Your task to perform on an android device: Open accessibility settings Image 0: 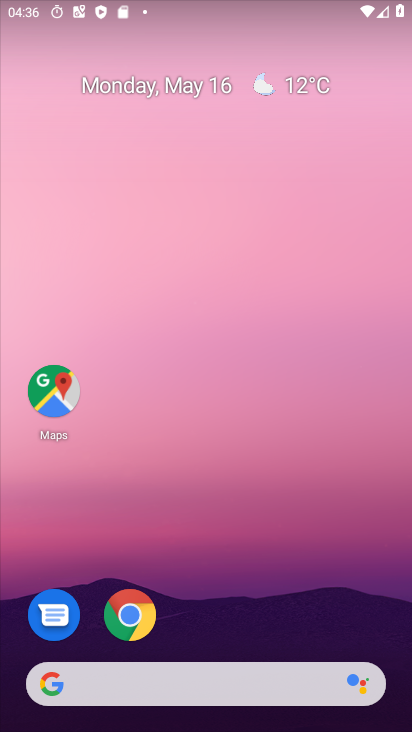
Step 0: drag from (262, 517) to (96, 175)
Your task to perform on an android device: Open accessibility settings Image 1: 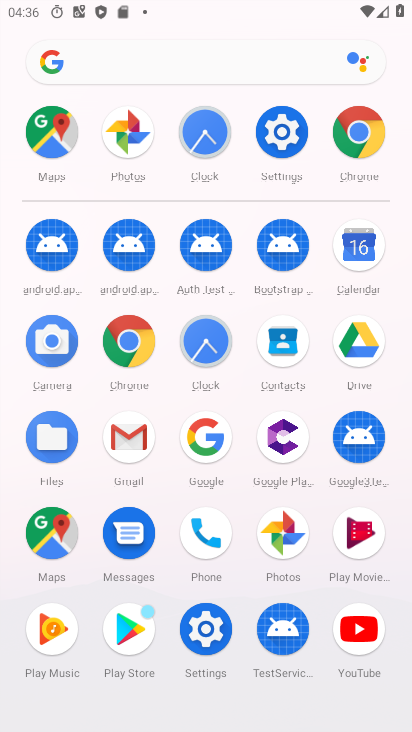
Step 1: drag from (275, 601) to (199, 164)
Your task to perform on an android device: Open accessibility settings Image 2: 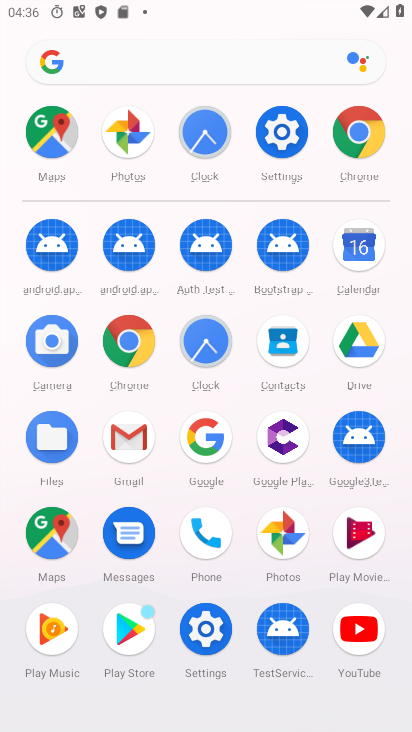
Step 2: click (277, 125)
Your task to perform on an android device: Open accessibility settings Image 3: 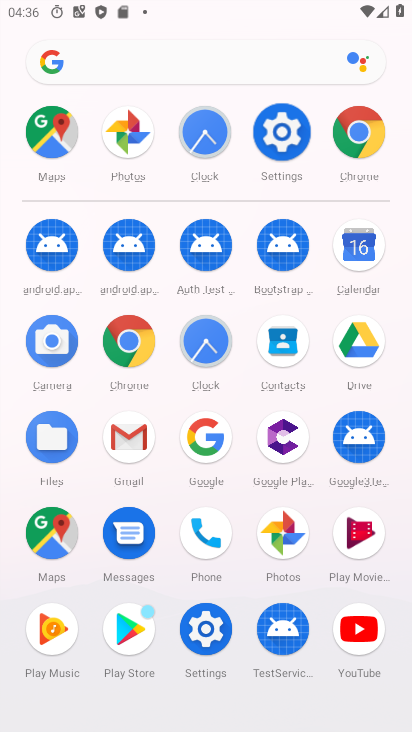
Step 3: click (277, 125)
Your task to perform on an android device: Open accessibility settings Image 4: 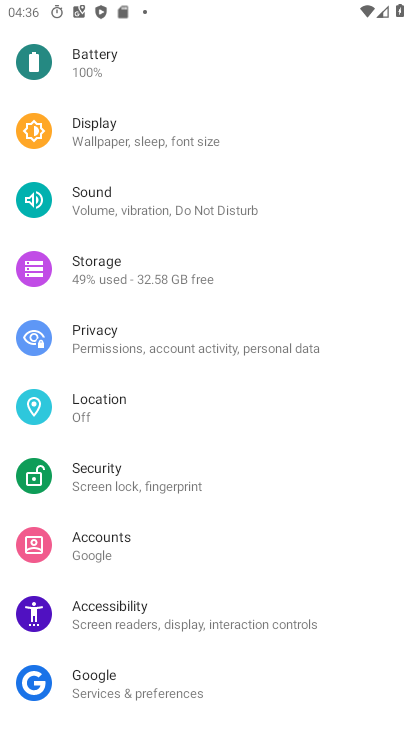
Step 4: click (123, 615)
Your task to perform on an android device: Open accessibility settings Image 5: 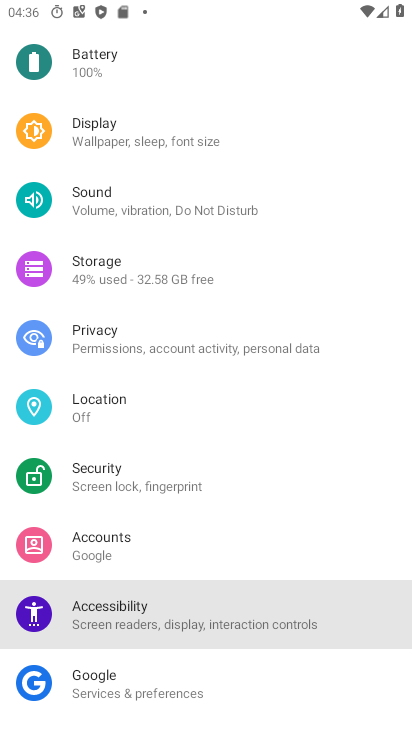
Step 5: click (124, 641)
Your task to perform on an android device: Open accessibility settings Image 6: 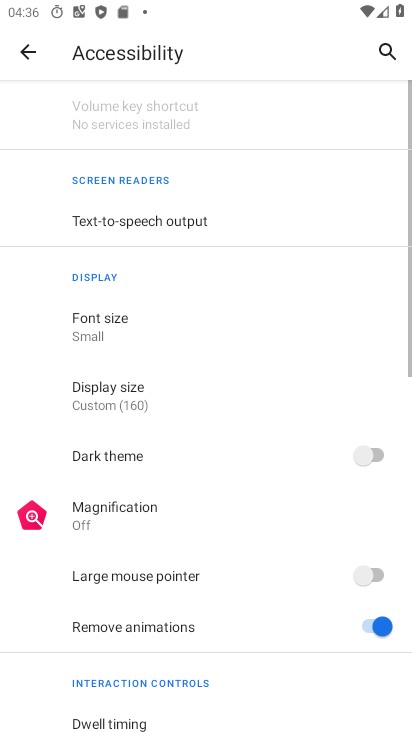
Step 6: click (118, 620)
Your task to perform on an android device: Open accessibility settings Image 7: 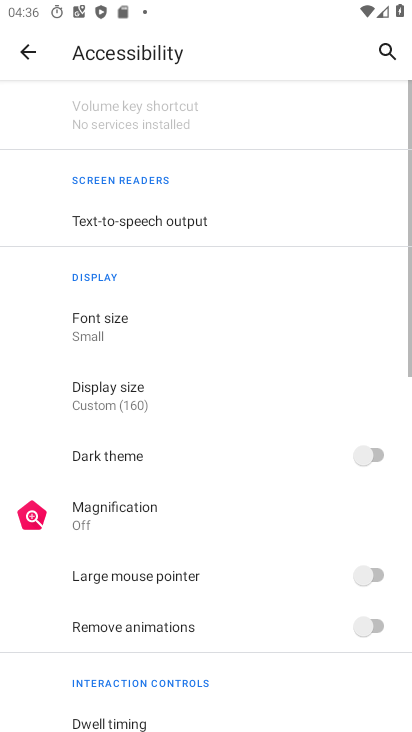
Step 7: task complete